Your task to perform on an android device: change the upload size in google photos Image 0: 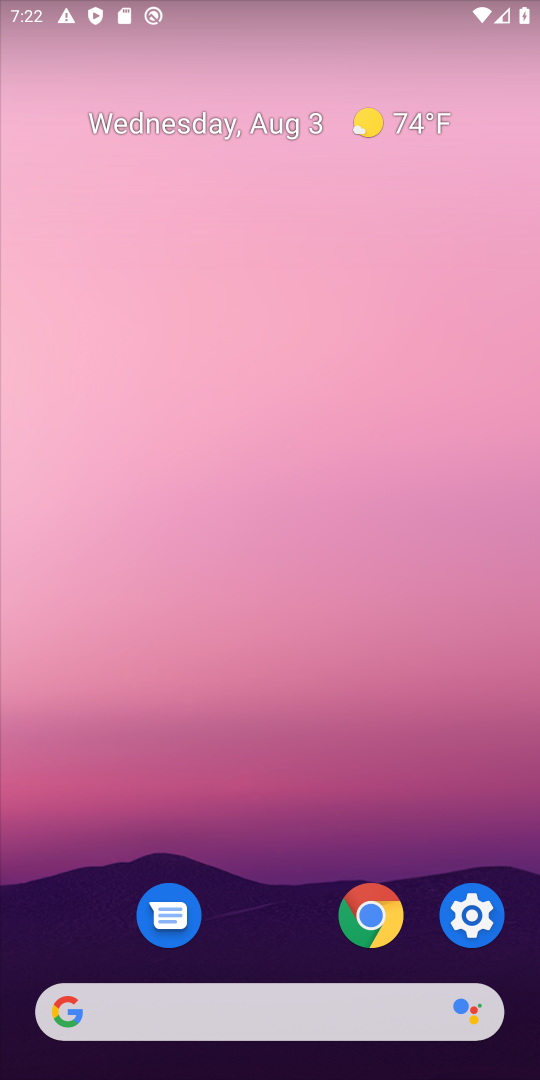
Step 0: drag from (336, 995) to (281, 183)
Your task to perform on an android device: change the upload size in google photos Image 1: 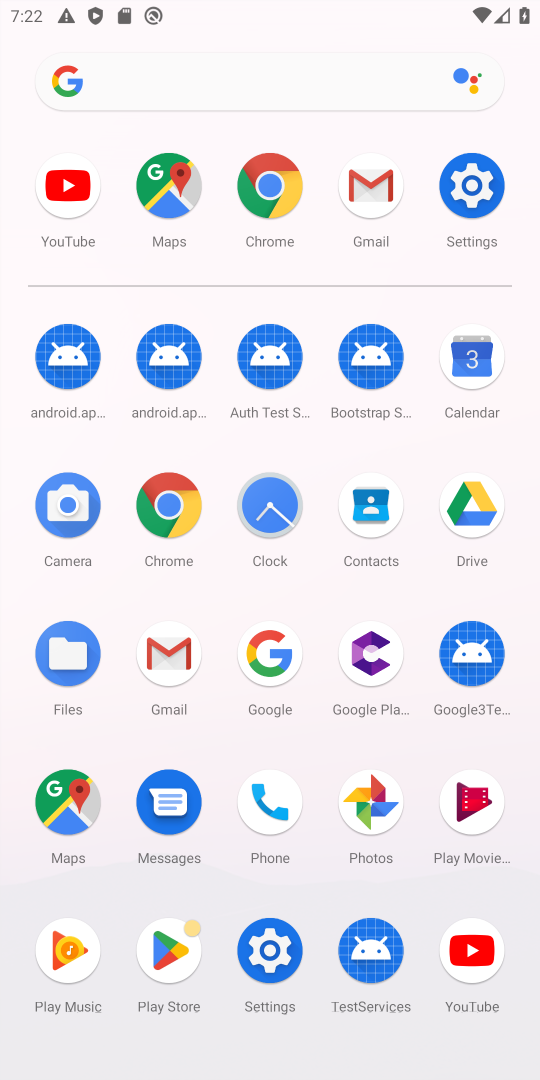
Step 1: click (391, 804)
Your task to perform on an android device: change the upload size in google photos Image 2: 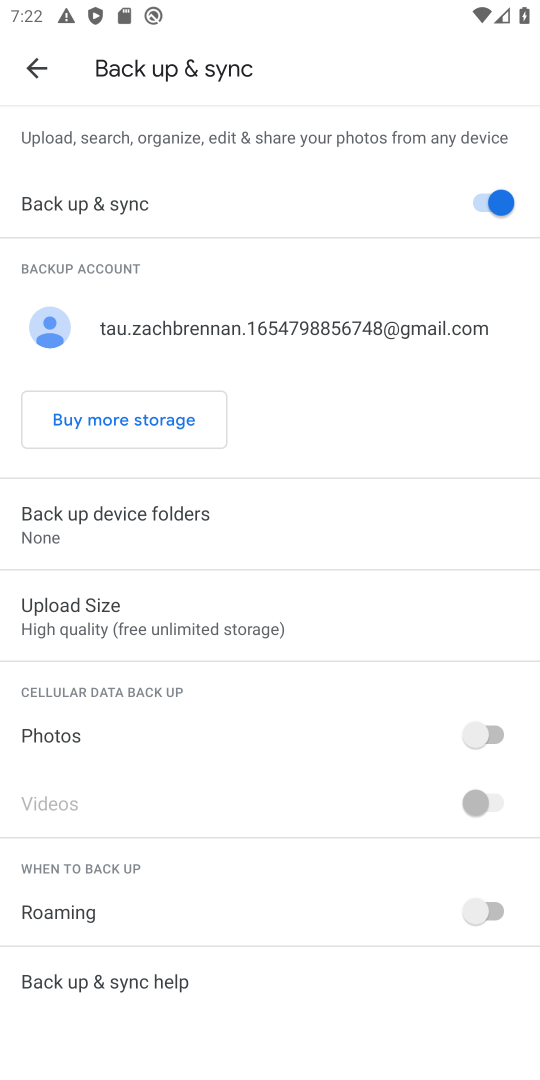
Step 2: click (130, 610)
Your task to perform on an android device: change the upload size in google photos Image 3: 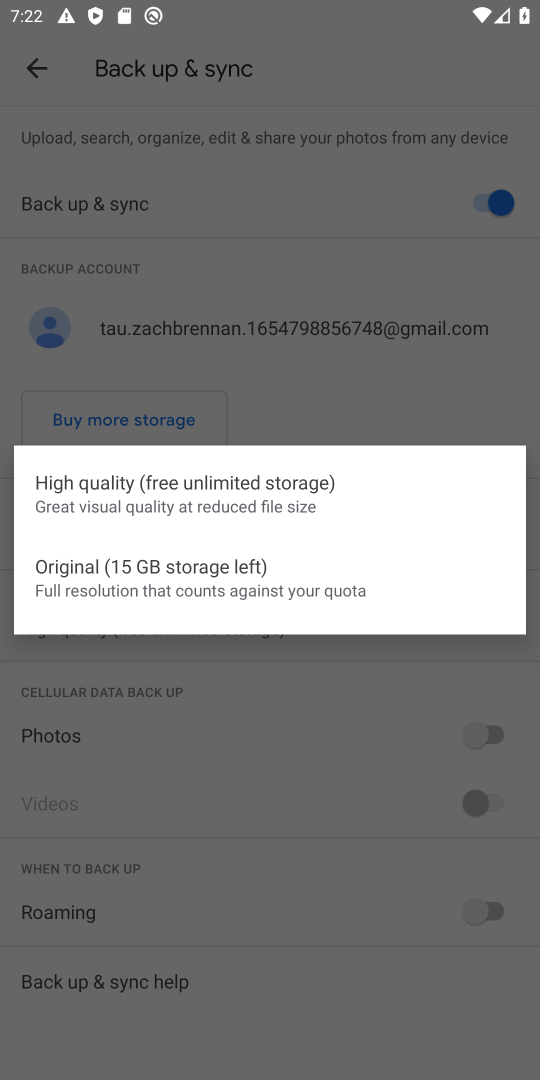
Step 3: task complete